Your task to perform on an android device: delete a single message in the gmail app Image 0: 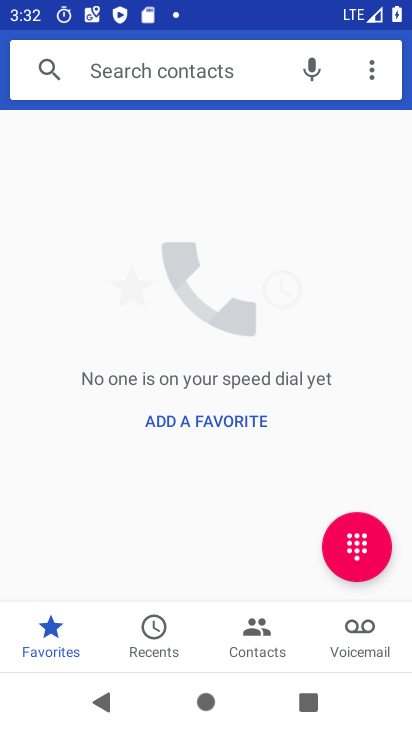
Step 0: press home button
Your task to perform on an android device: delete a single message in the gmail app Image 1: 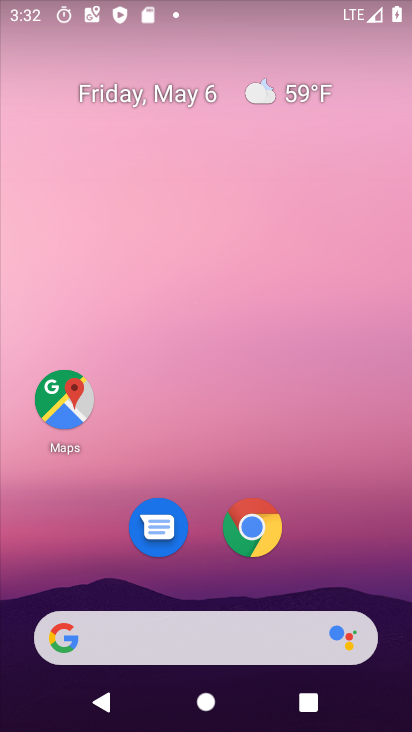
Step 1: drag from (221, 548) to (248, 123)
Your task to perform on an android device: delete a single message in the gmail app Image 2: 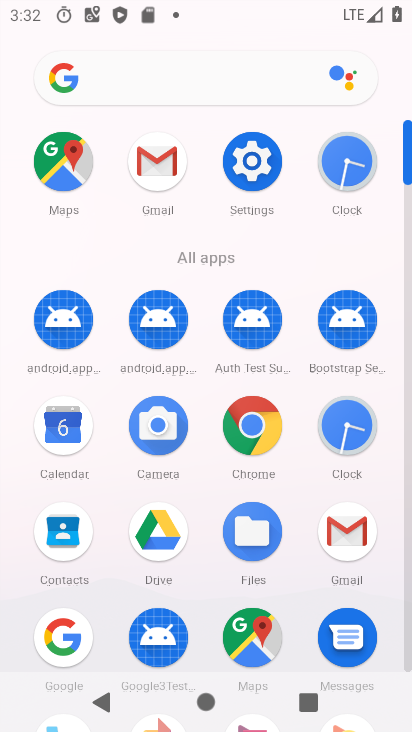
Step 2: click (142, 187)
Your task to perform on an android device: delete a single message in the gmail app Image 3: 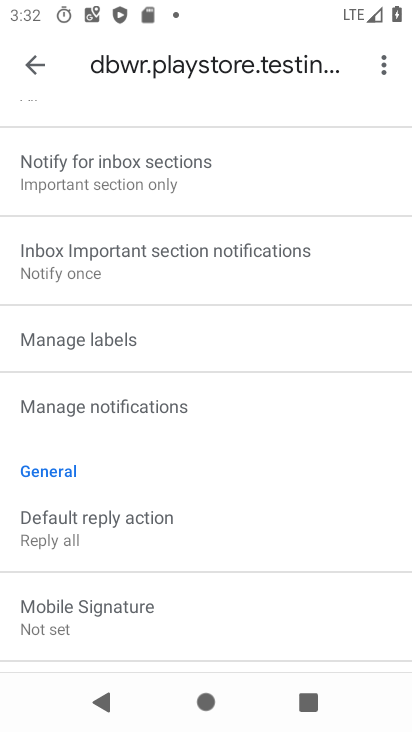
Step 3: click (37, 72)
Your task to perform on an android device: delete a single message in the gmail app Image 4: 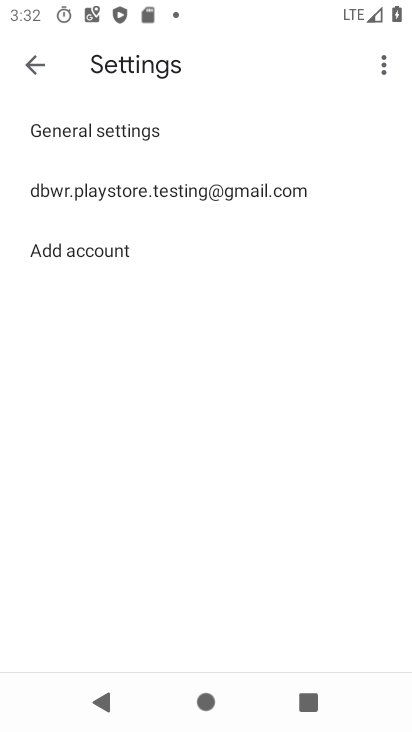
Step 4: click (39, 80)
Your task to perform on an android device: delete a single message in the gmail app Image 5: 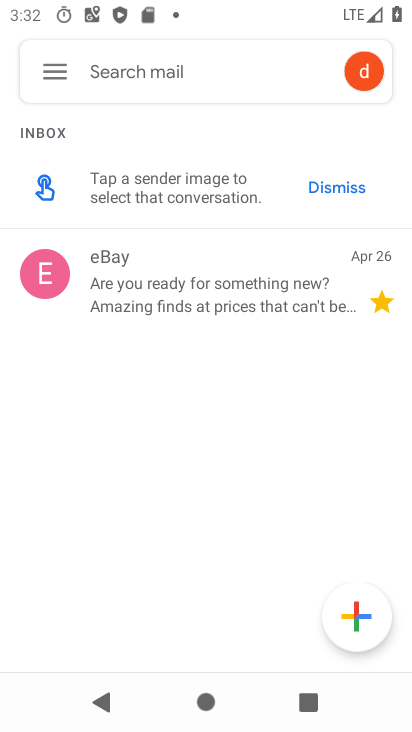
Step 5: click (265, 297)
Your task to perform on an android device: delete a single message in the gmail app Image 6: 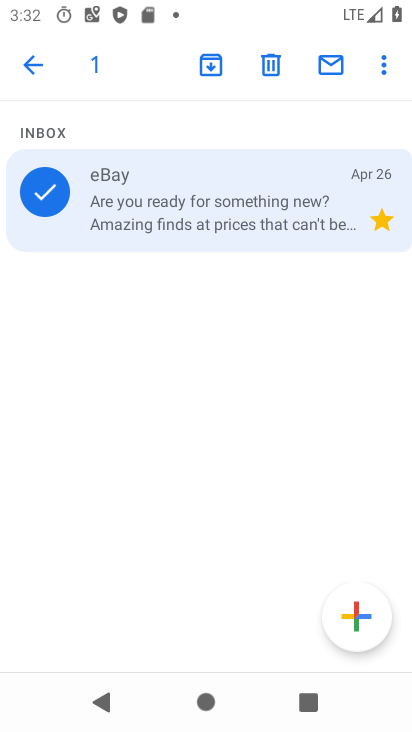
Step 6: click (276, 70)
Your task to perform on an android device: delete a single message in the gmail app Image 7: 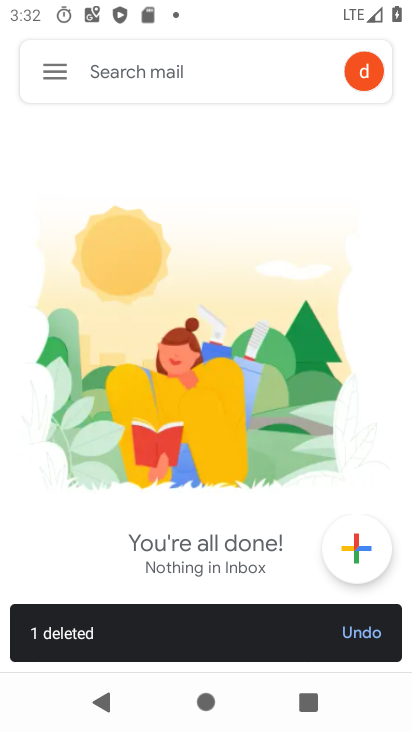
Step 7: task complete